Your task to perform on an android device: Open display settings Image 0: 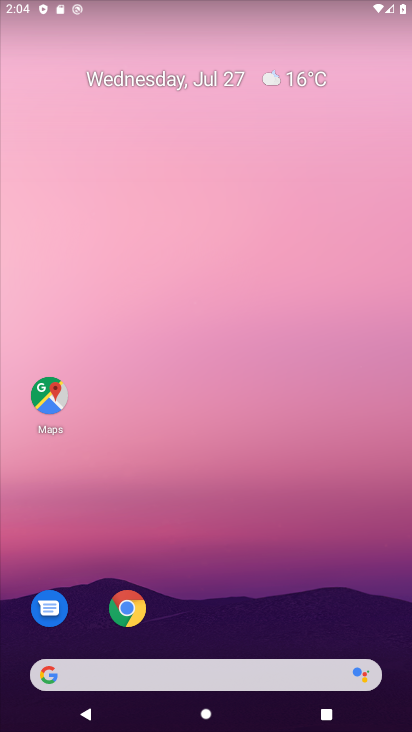
Step 0: drag from (221, 497) to (220, 153)
Your task to perform on an android device: Open display settings Image 1: 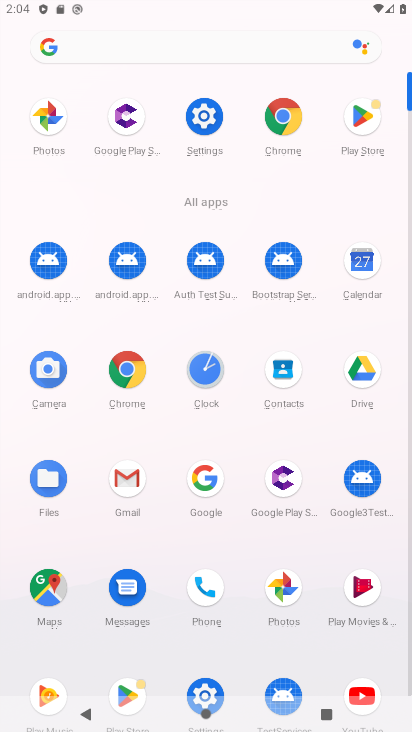
Step 1: click (198, 119)
Your task to perform on an android device: Open display settings Image 2: 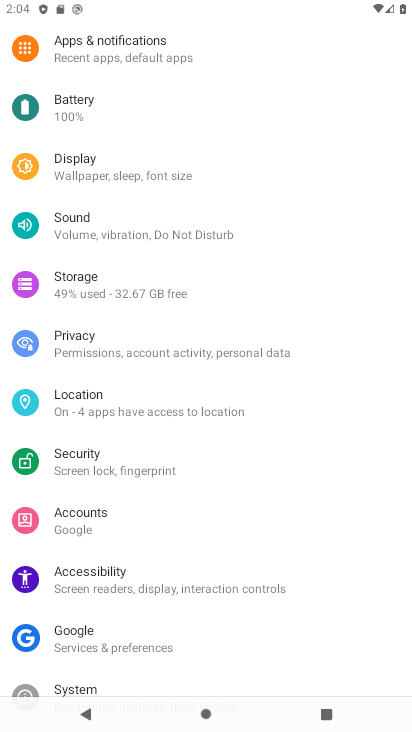
Step 2: click (84, 163)
Your task to perform on an android device: Open display settings Image 3: 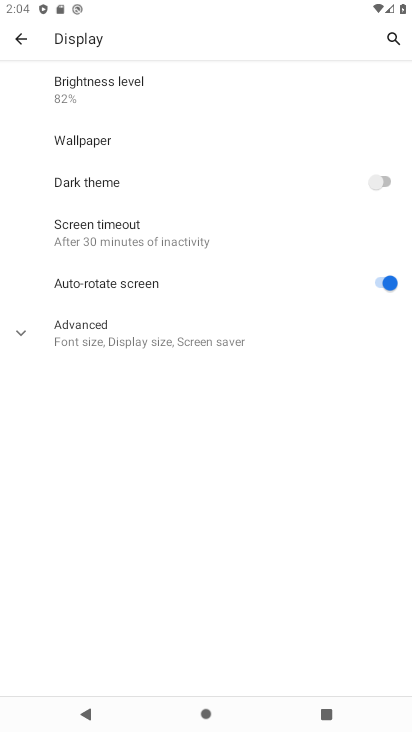
Step 3: task complete